Your task to perform on an android device: turn on priority inbox in the gmail app Image 0: 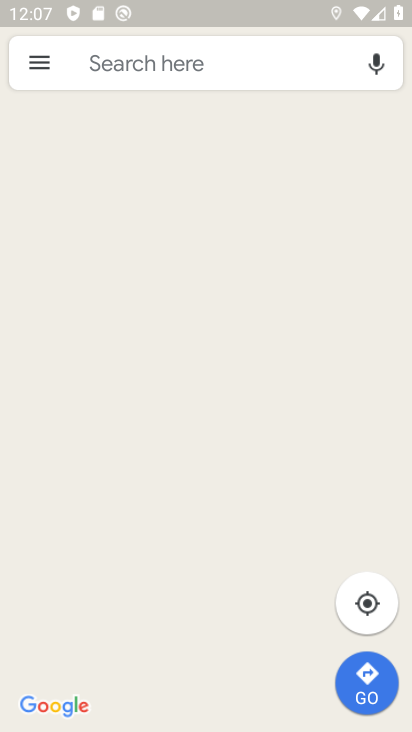
Step 0: press home button
Your task to perform on an android device: turn on priority inbox in the gmail app Image 1: 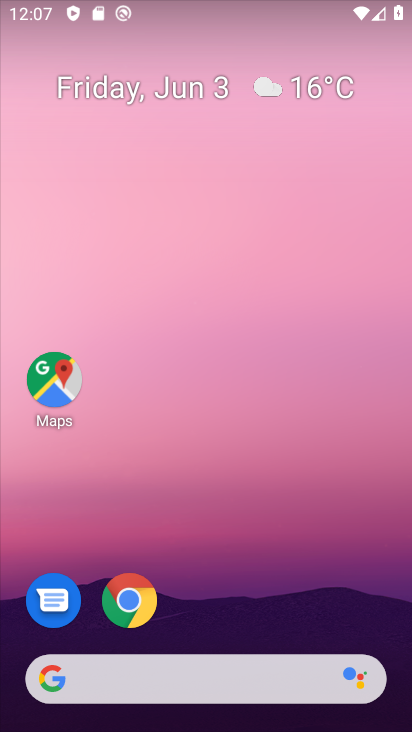
Step 1: drag from (325, 509) to (310, 161)
Your task to perform on an android device: turn on priority inbox in the gmail app Image 2: 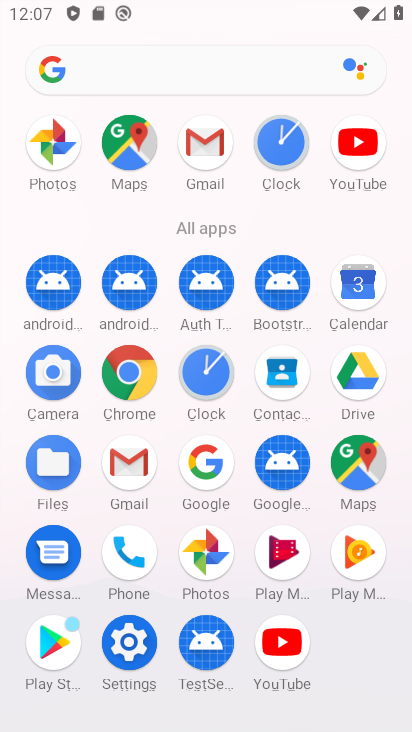
Step 2: click (186, 134)
Your task to perform on an android device: turn on priority inbox in the gmail app Image 3: 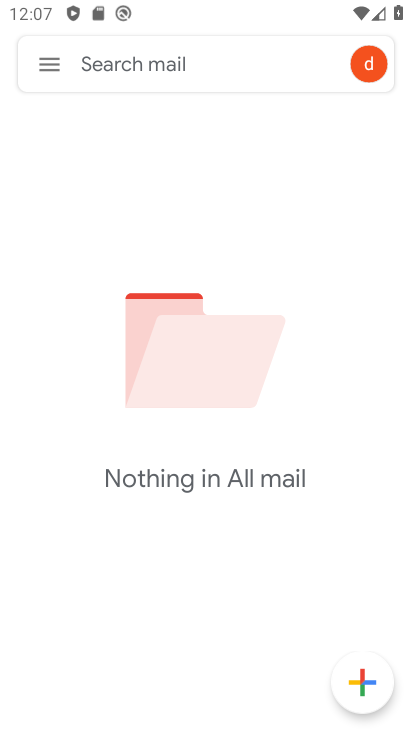
Step 3: click (46, 63)
Your task to perform on an android device: turn on priority inbox in the gmail app Image 4: 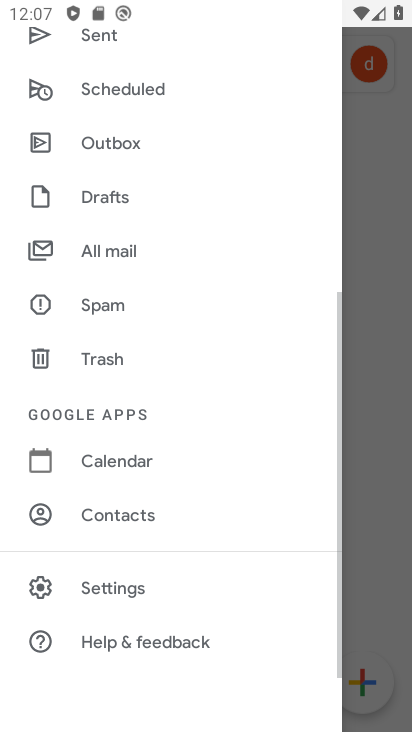
Step 4: click (154, 613)
Your task to perform on an android device: turn on priority inbox in the gmail app Image 5: 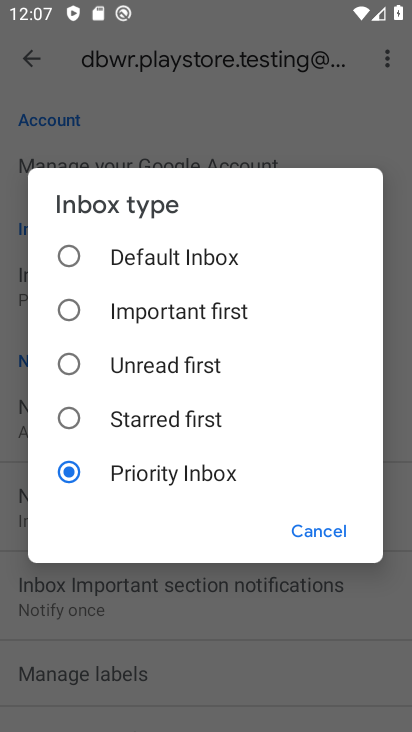
Step 5: click (326, 529)
Your task to perform on an android device: turn on priority inbox in the gmail app Image 6: 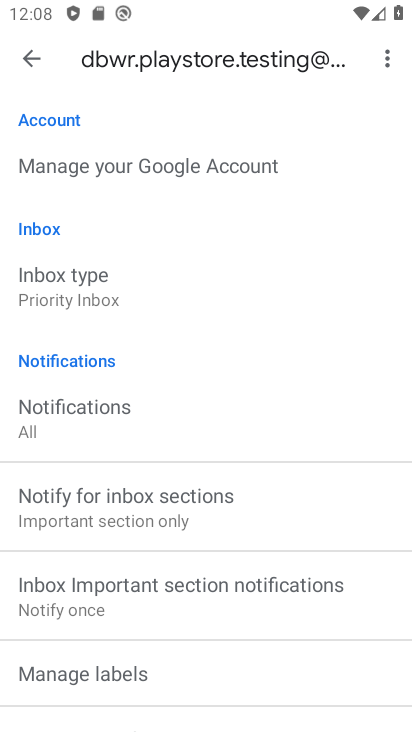
Step 6: task complete